Your task to perform on an android device: Set the phone to "Do not disturb". Image 0: 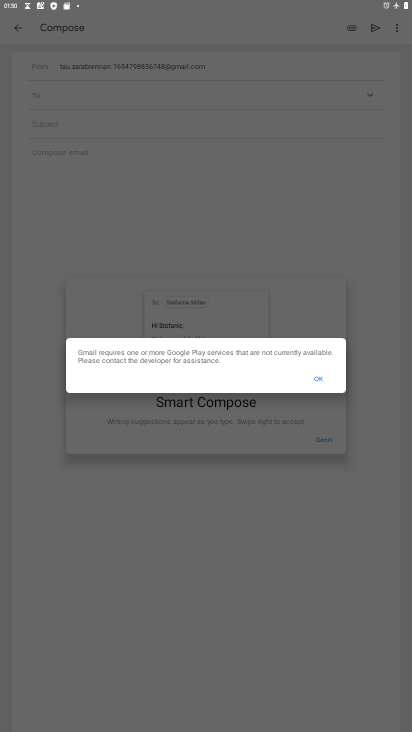
Step 0: press home button
Your task to perform on an android device: Set the phone to "Do not disturb". Image 1: 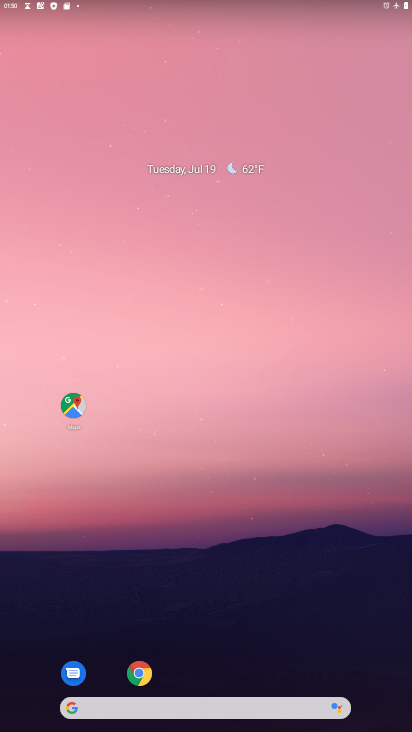
Step 1: drag from (209, 4) to (169, 532)
Your task to perform on an android device: Set the phone to "Do not disturb". Image 2: 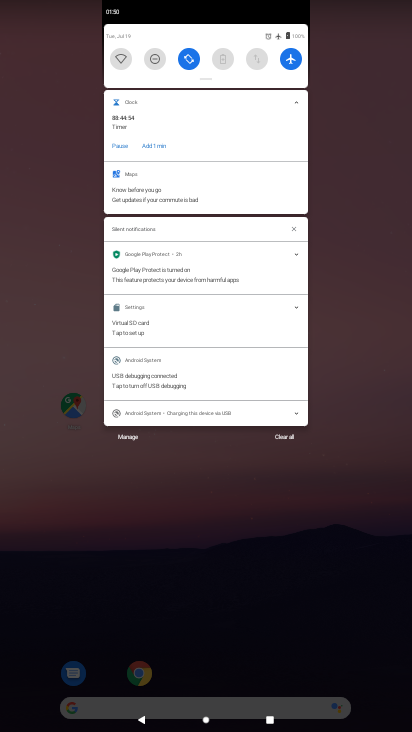
Step 2: click (155, 61)
Your task to perform on an android device: Set the phone to "Do not disturb". Image 3: 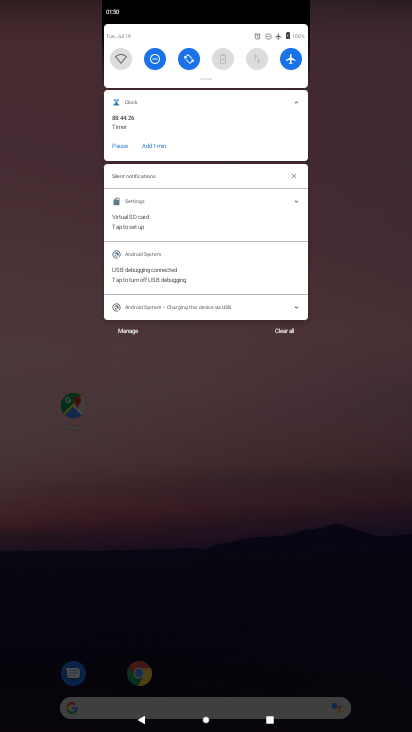
Step 3: task complete